Your task to perform on an android device: search for starred emails in the gmail app Image 0: 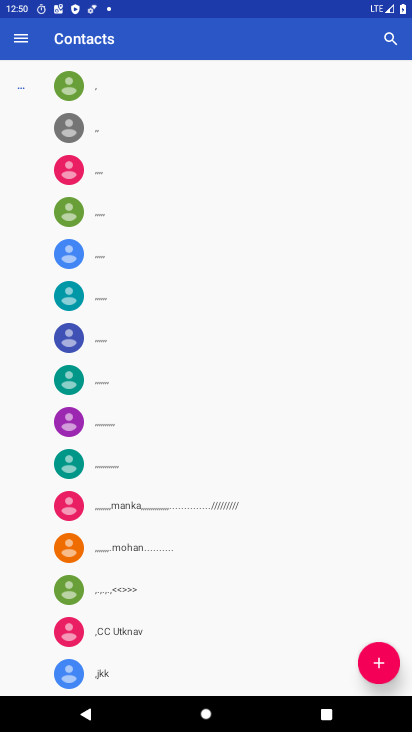
Step 0: press home button
Your task to perform on an android device: search for starred emails in the gmail app Image 1: 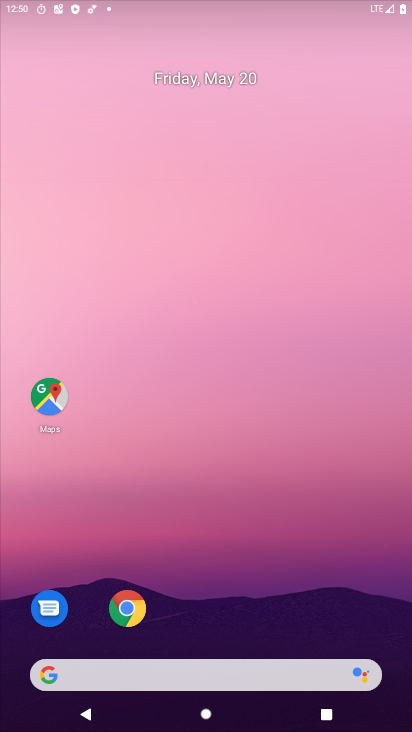
Step 1: drag from (348, 588) to (357, 83)
Your task to perform on an android device: search for starred emails in the gmail app Image 2: 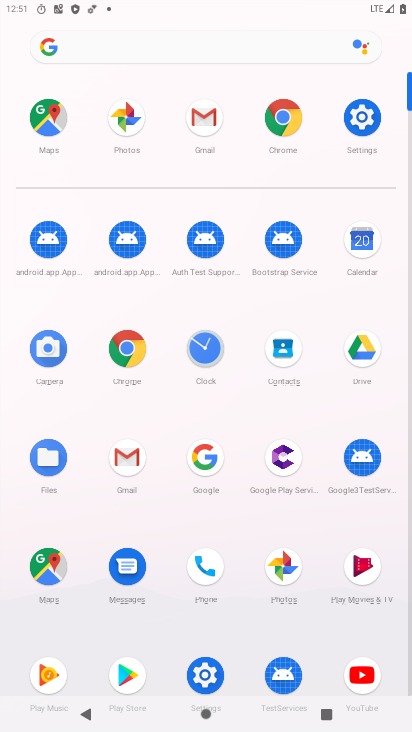
Step 2: click (126, 456)
Your task to perform on an android device: search for starred emails in the gmail app Image 3: 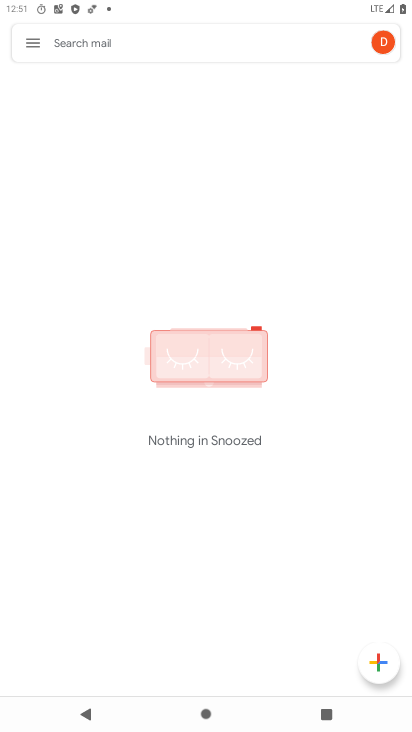
Step 3: click (33, 39)
Your task to perform on an android device: search for starred emails in the gmail app Image 4: 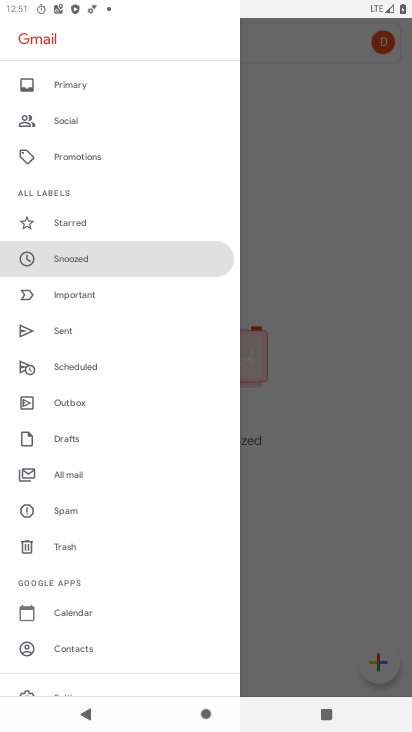
Step 4: click (110, 221)
Your task to perform on an android device: search for starred emails in the gmail app Image 5: 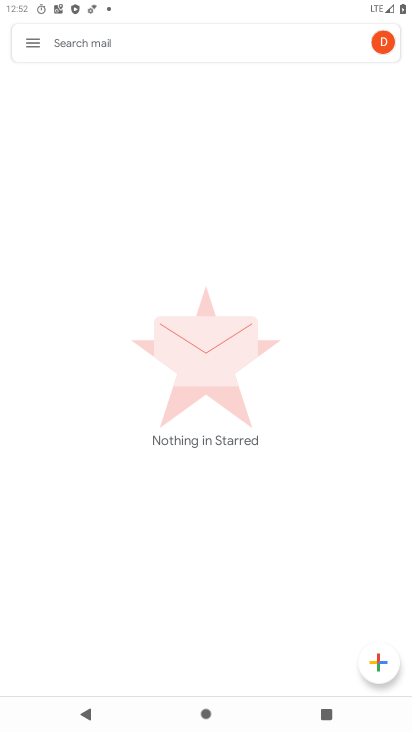
Step 5: task complete